Your task to perform on an android device: add a contact Image 0: 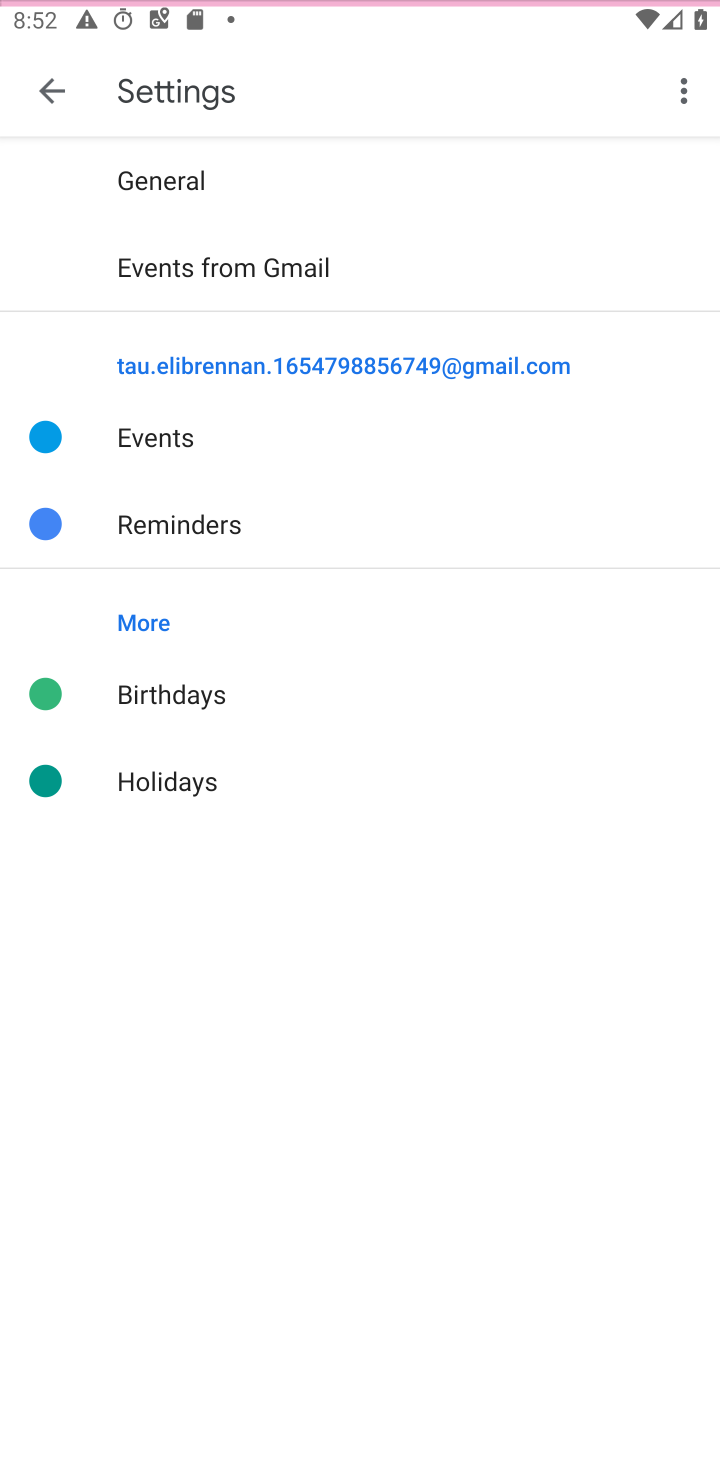
Step 0: press home button
Your task to perform on an android device: add a contact Image 1: 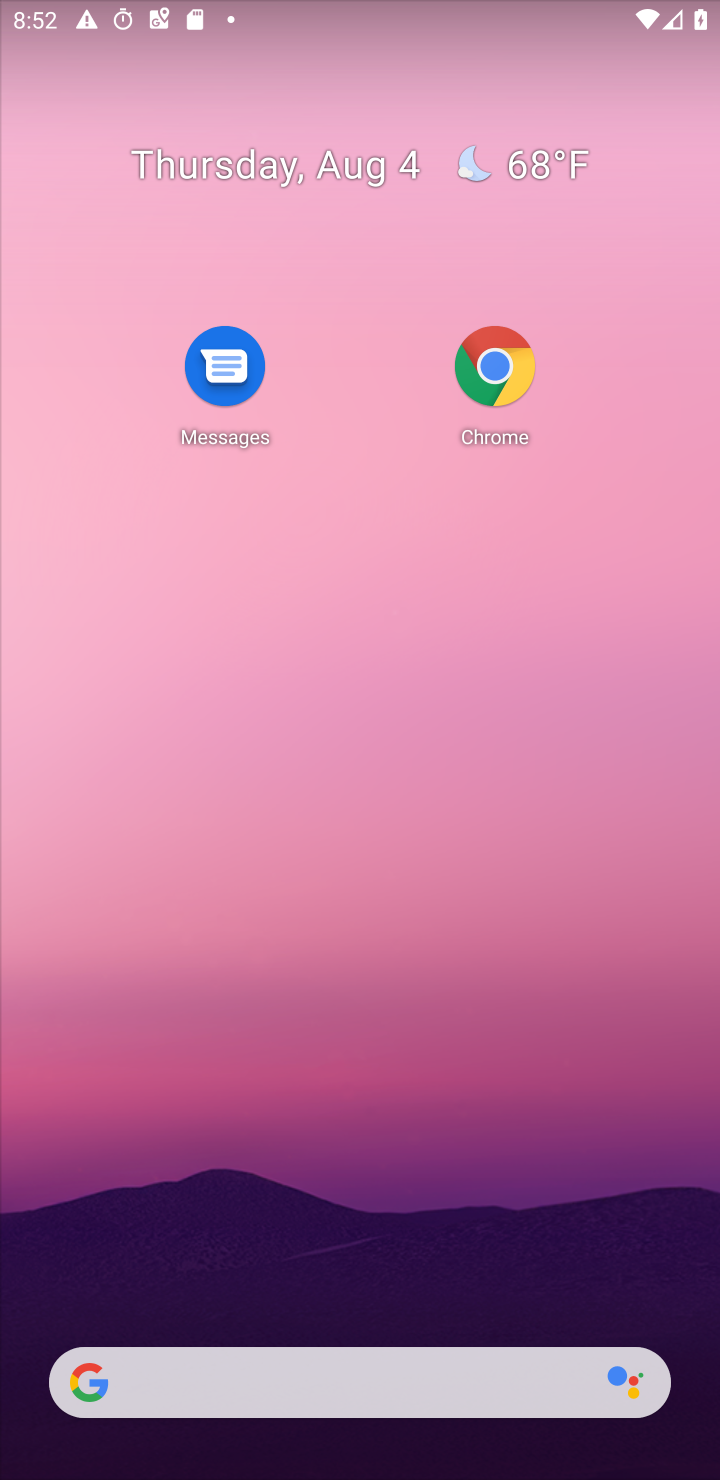
Step 1: drag from (435, 1387) to (268, 458)
Your task to perform on an android device: add a contact Image 2: 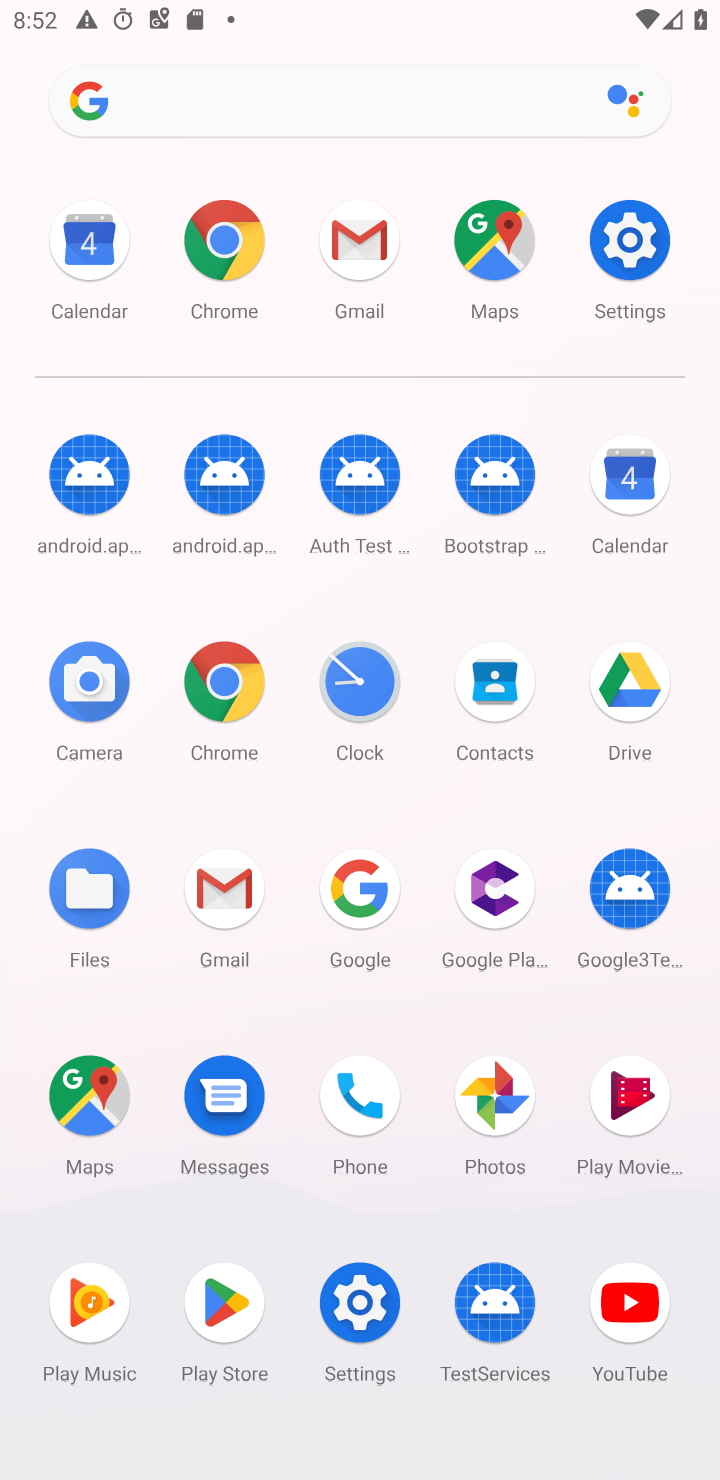
Step 2: click (381, 1083)
Your task to perform on an android device: add a contact Image 3: 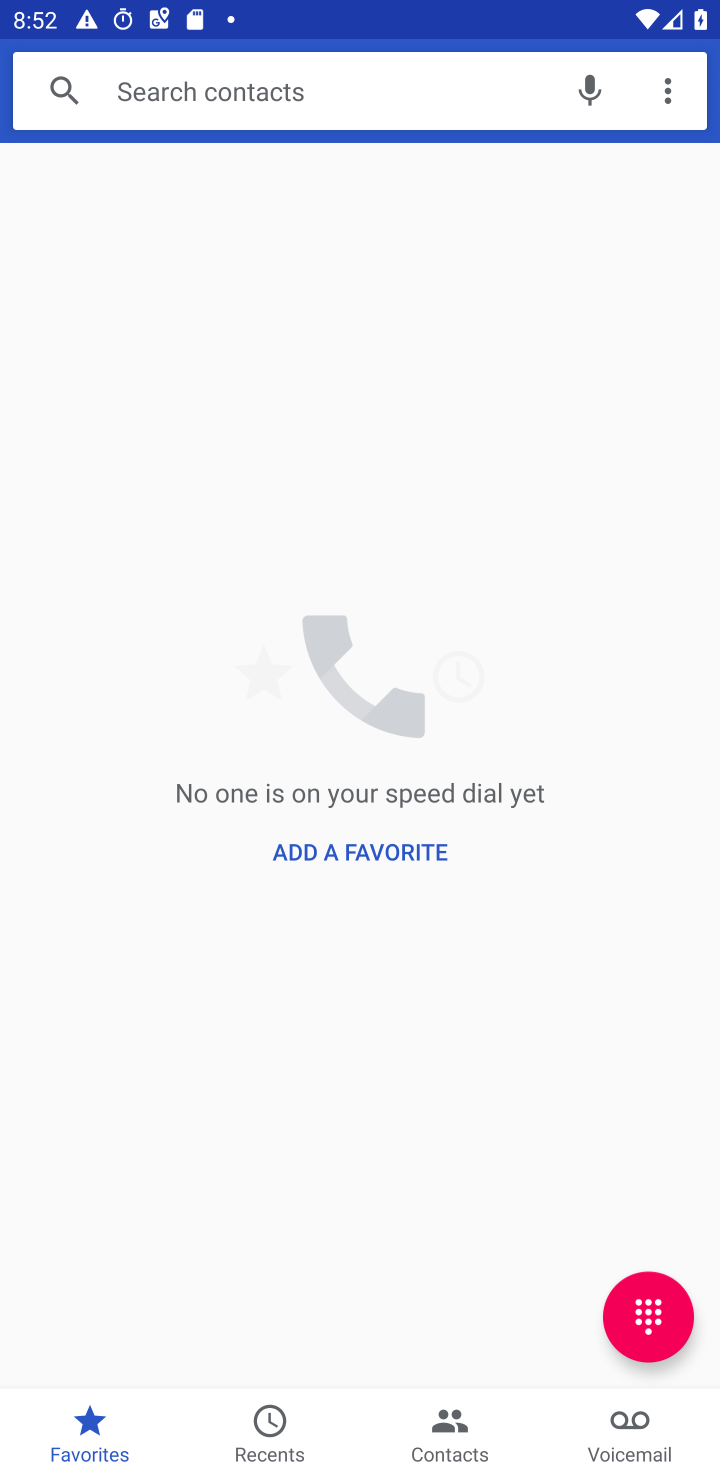
Step 3: click (440, 1425)
Your task to perform on an android device: add a contact Image 4: 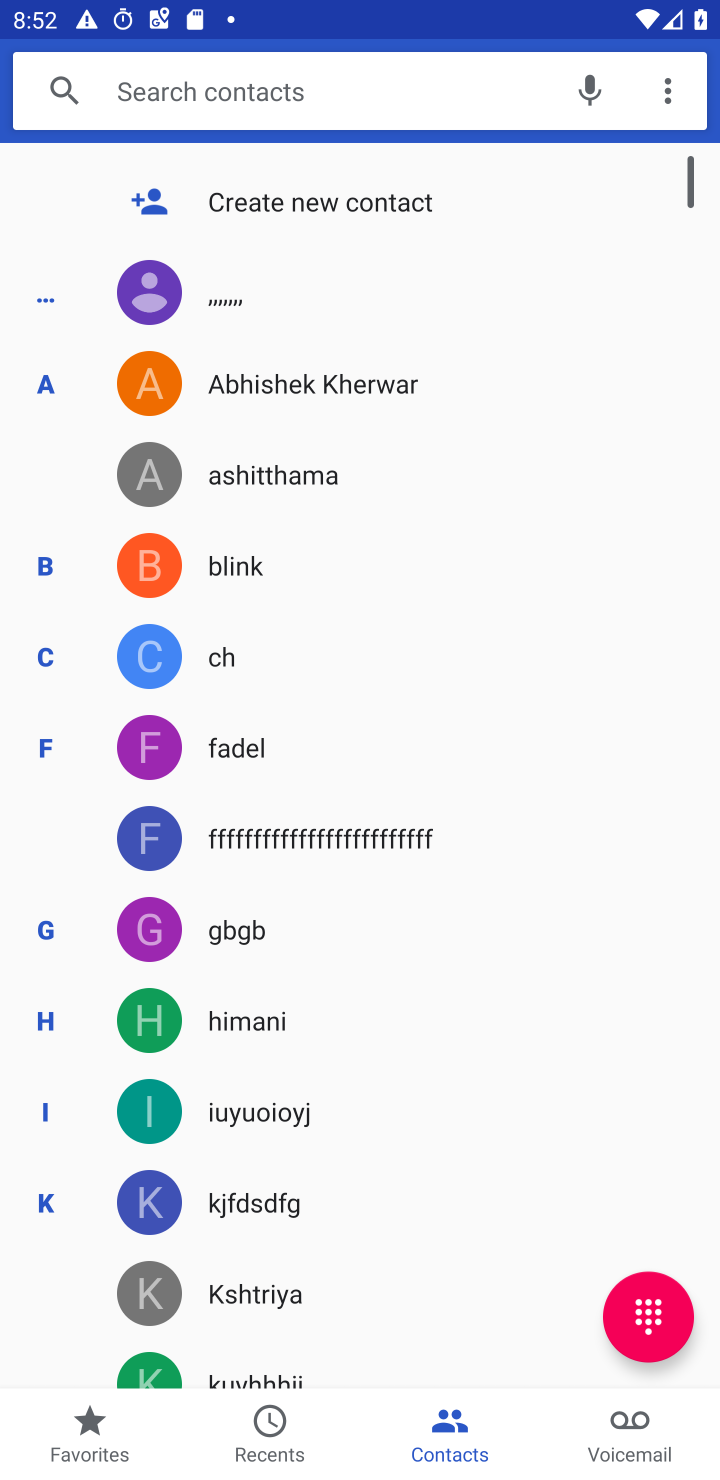
Step 4: click (222, 200)
Your task to perform on an android device: add a contact Image 5: 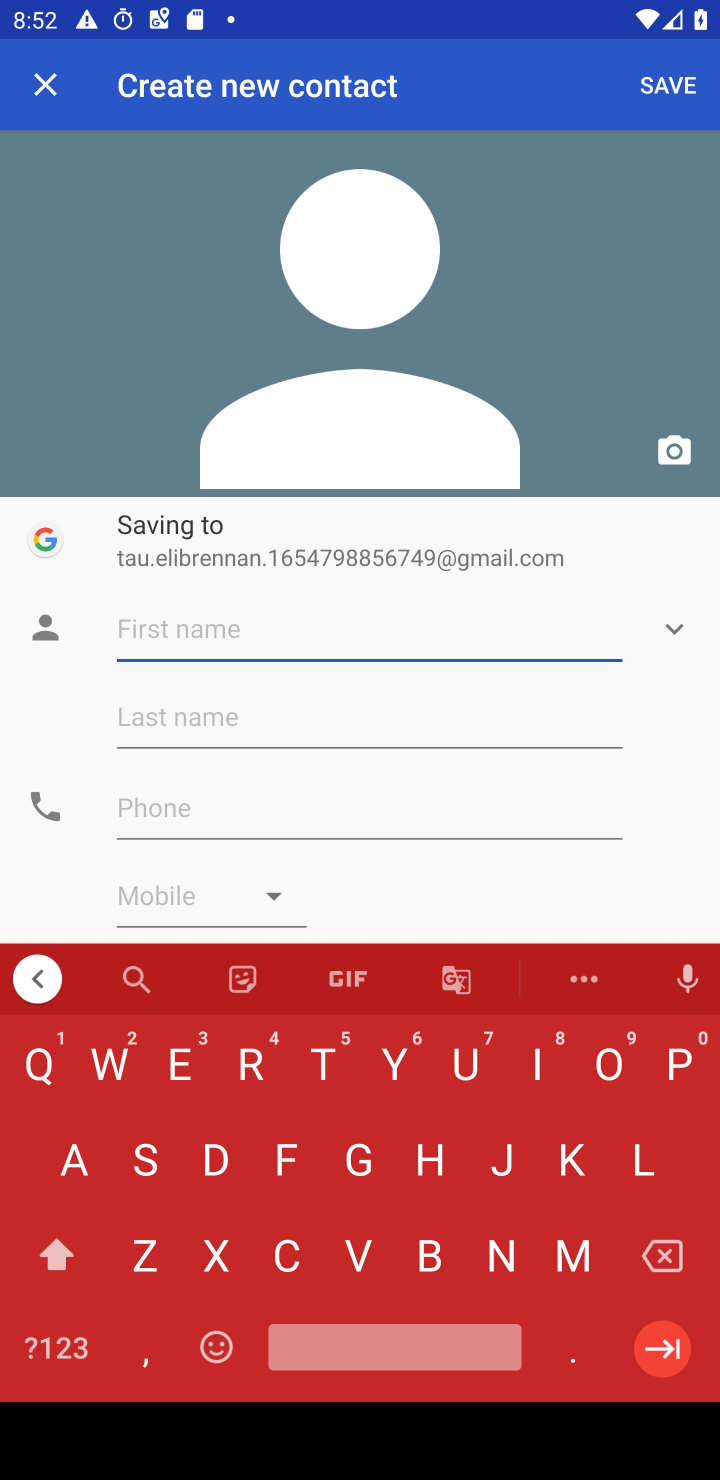
Step 5: click (266, 1213)
Your task to perform on an android device: add a contact Image 6: 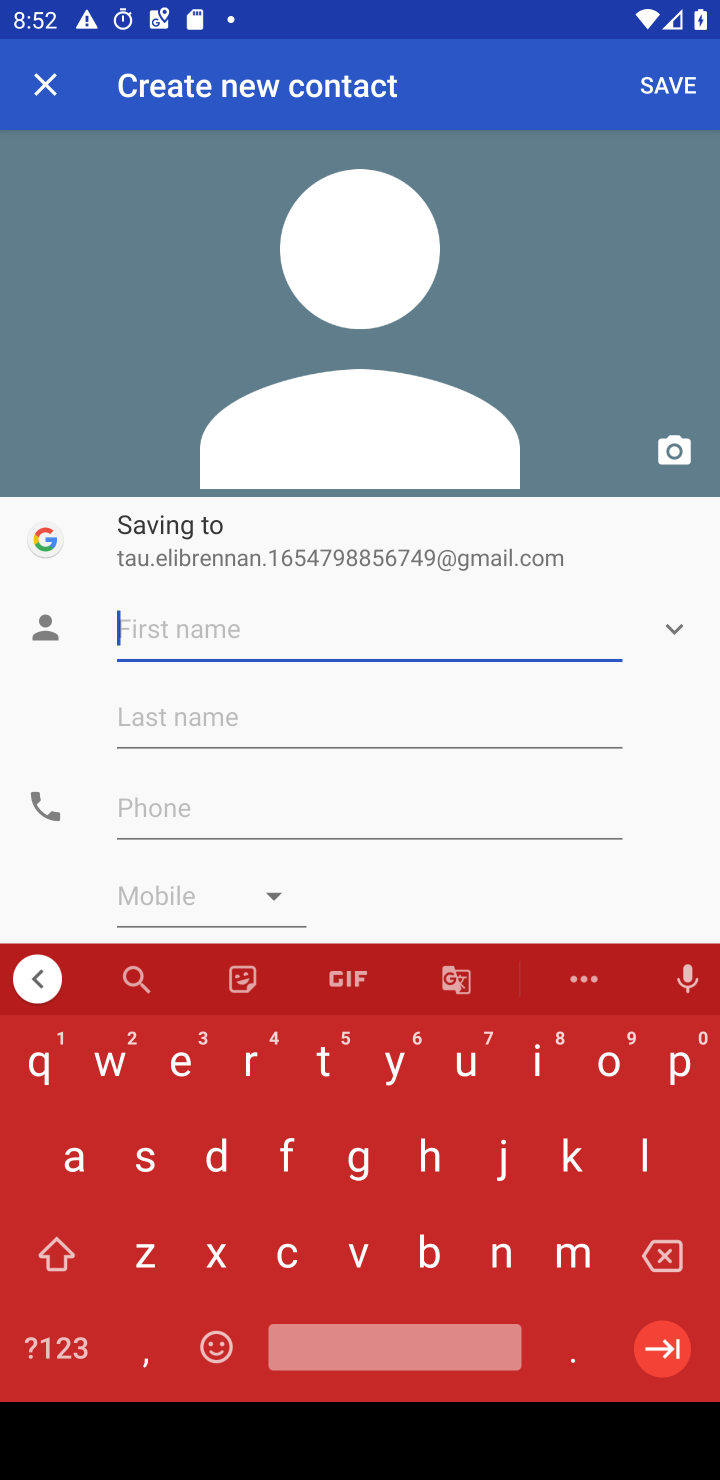
Step 6: drag from (311, 1167) to (426, 1181)
Your task to perform on an android device: add a contact Image 7: 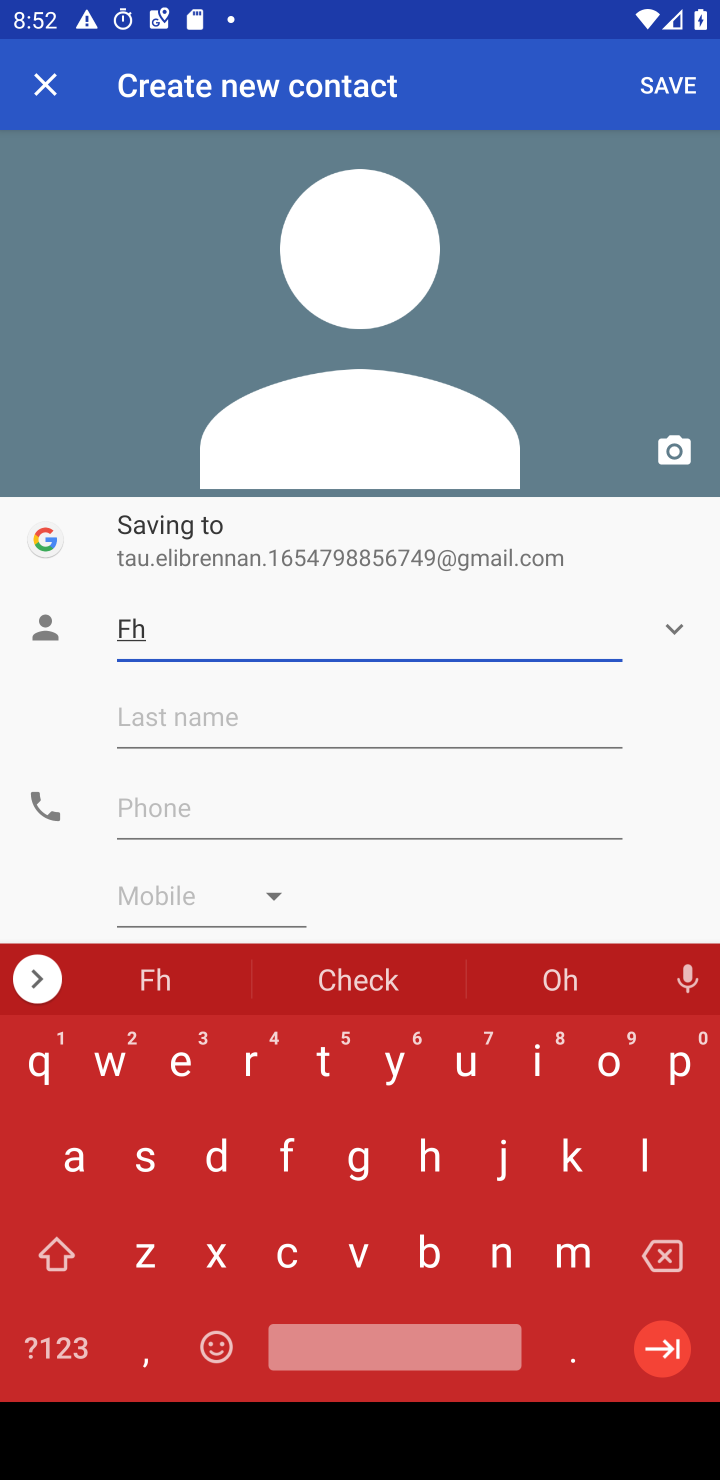
Step 7: click (184, 814)
Your task to perform on an android device: add a contact Image 8: 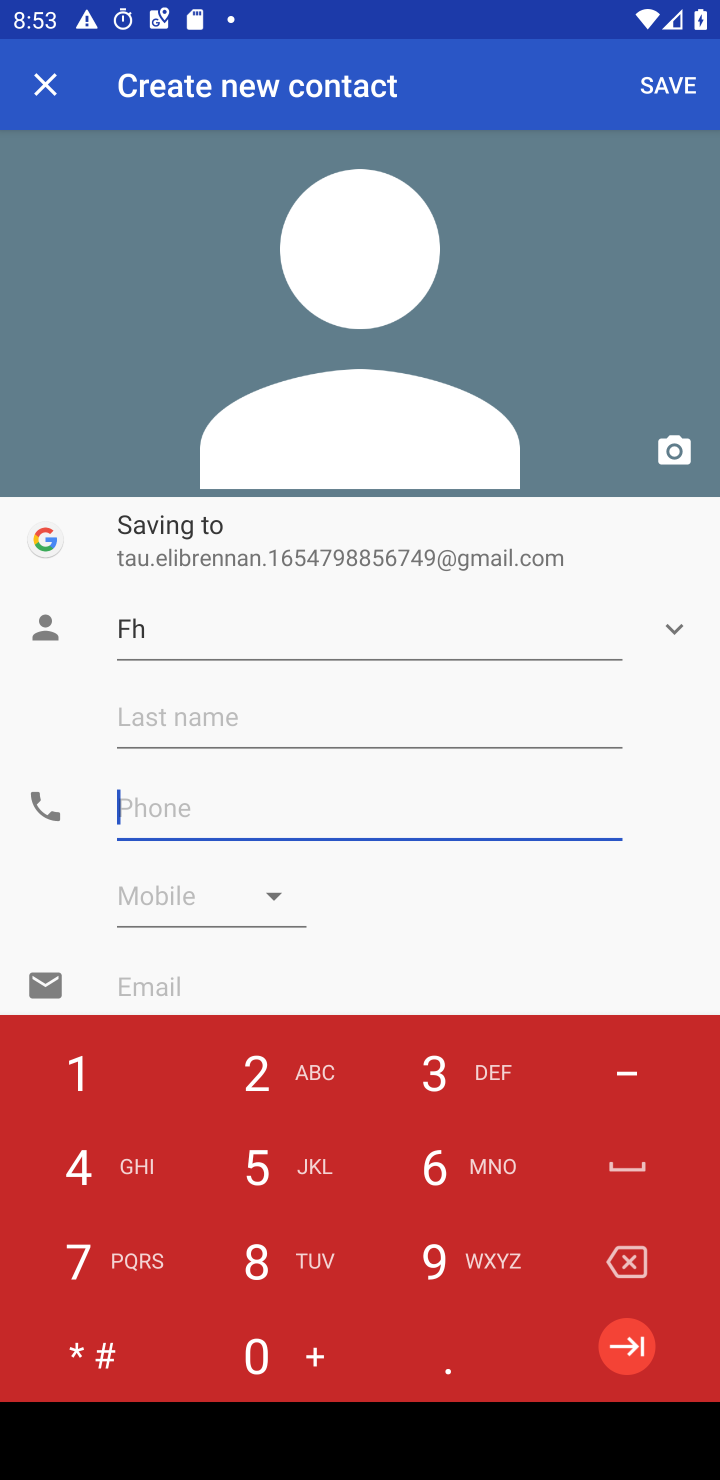
Step 8: click (267, 1125)
Your task to perform on an android device: add a contact Image 9: 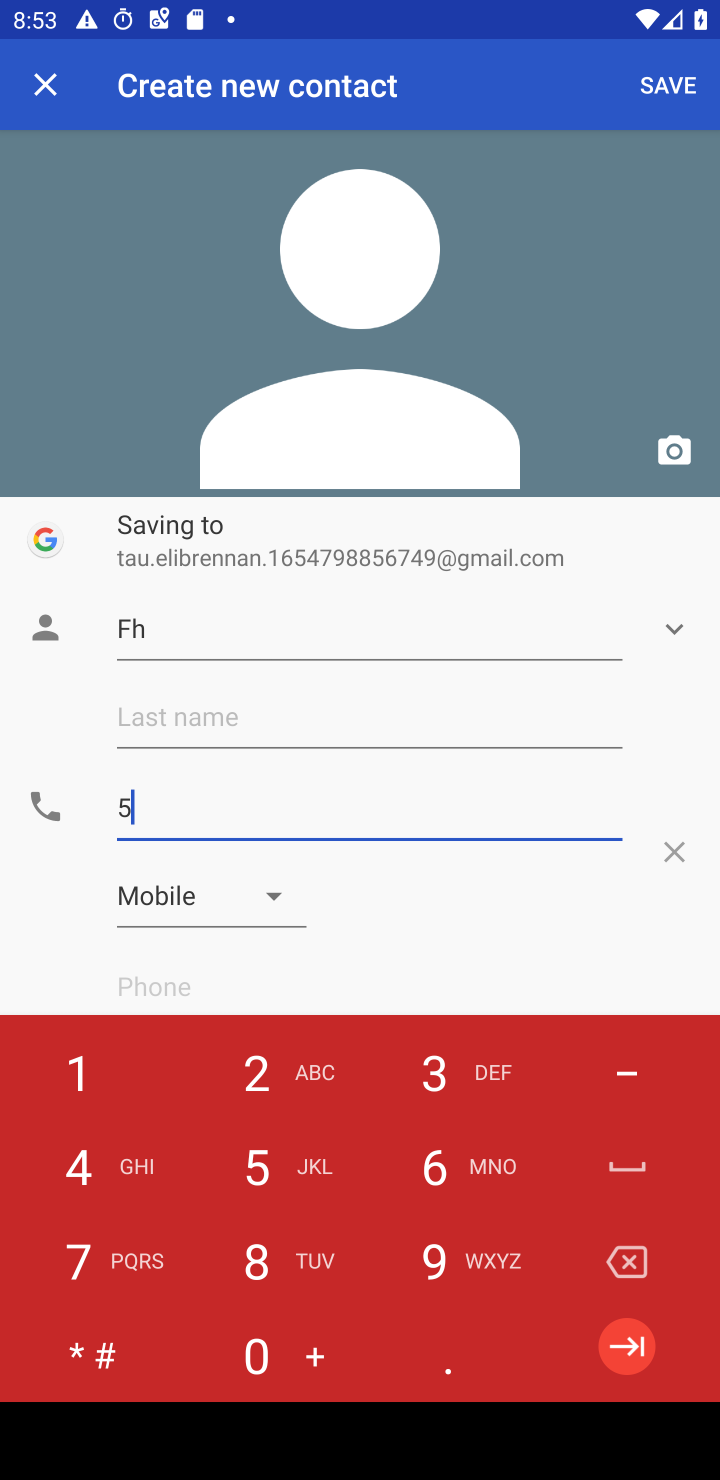
Step 9: click (108, 1186)
Your task to perform on an android device: add a contact Image 10: 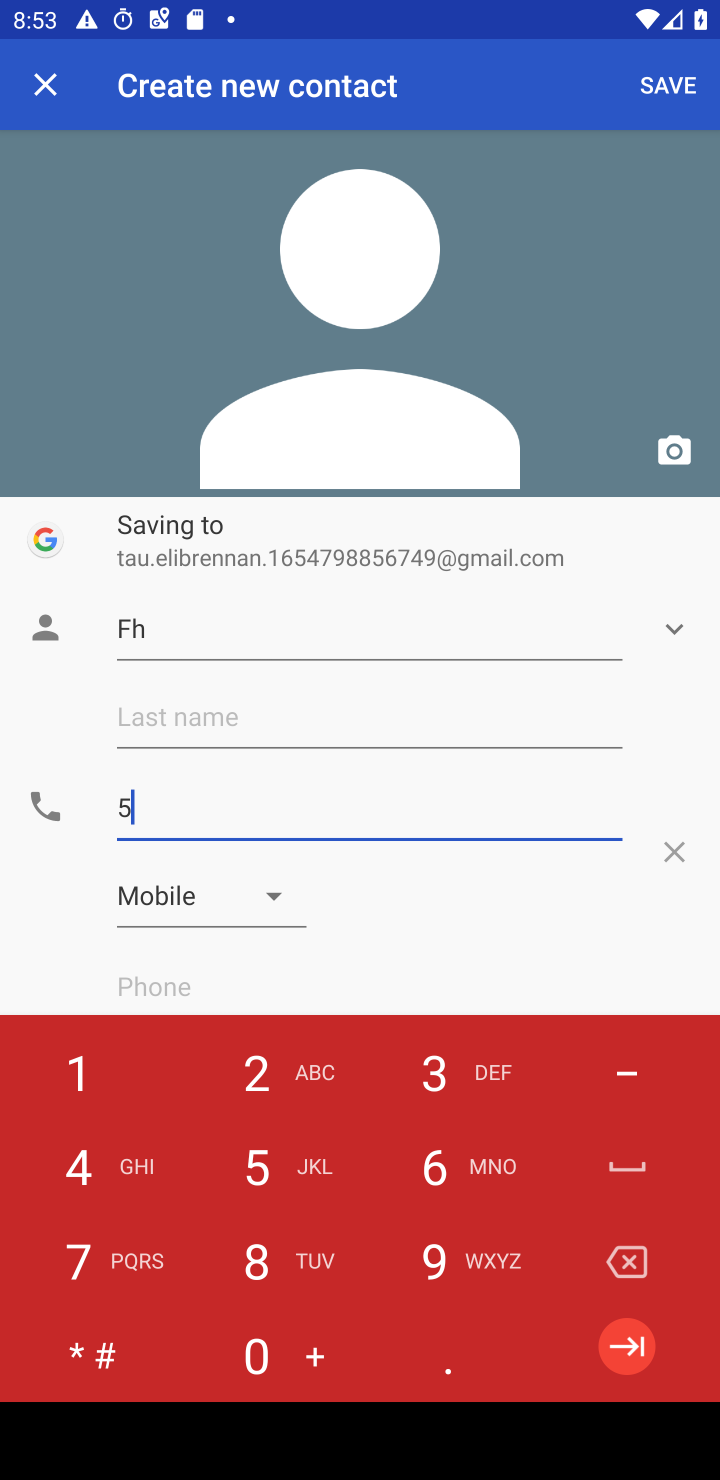
Step 10: click (254, 1281)
Your task to perform on an android device: add a contact Image 11: 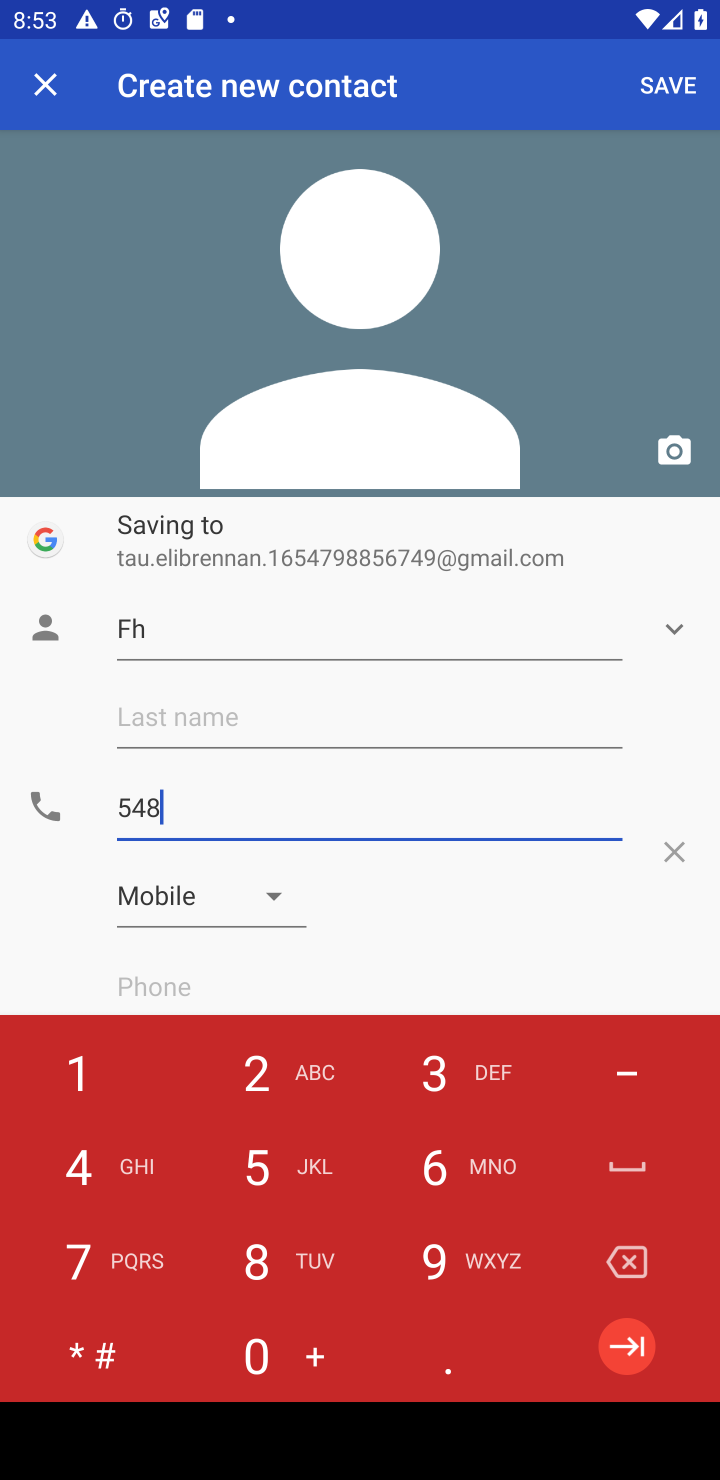
Step 11: click (486, 1175)
Your task to perform on an android device: add a contact Image 12: 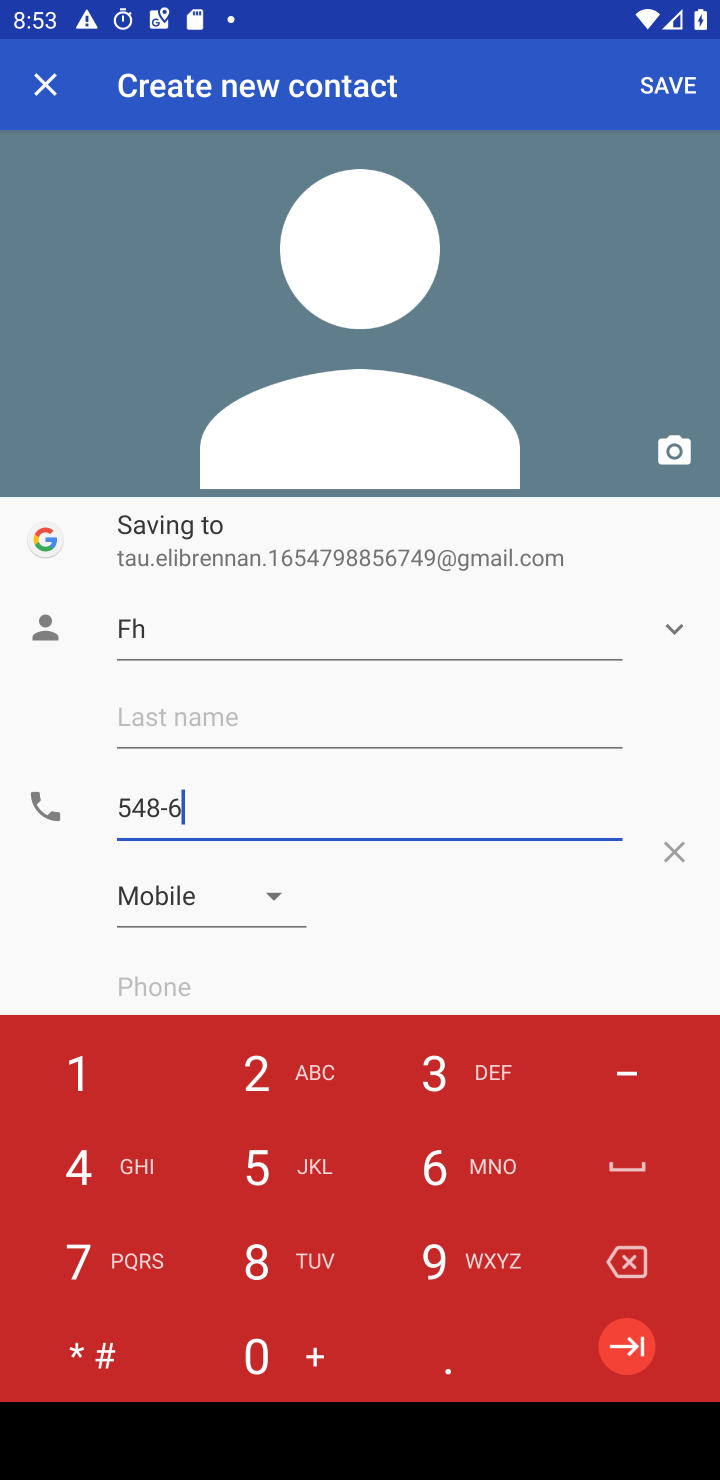
Step 12: click (451, 1229)
Your task to perform on an android device: add a contact Image 13: 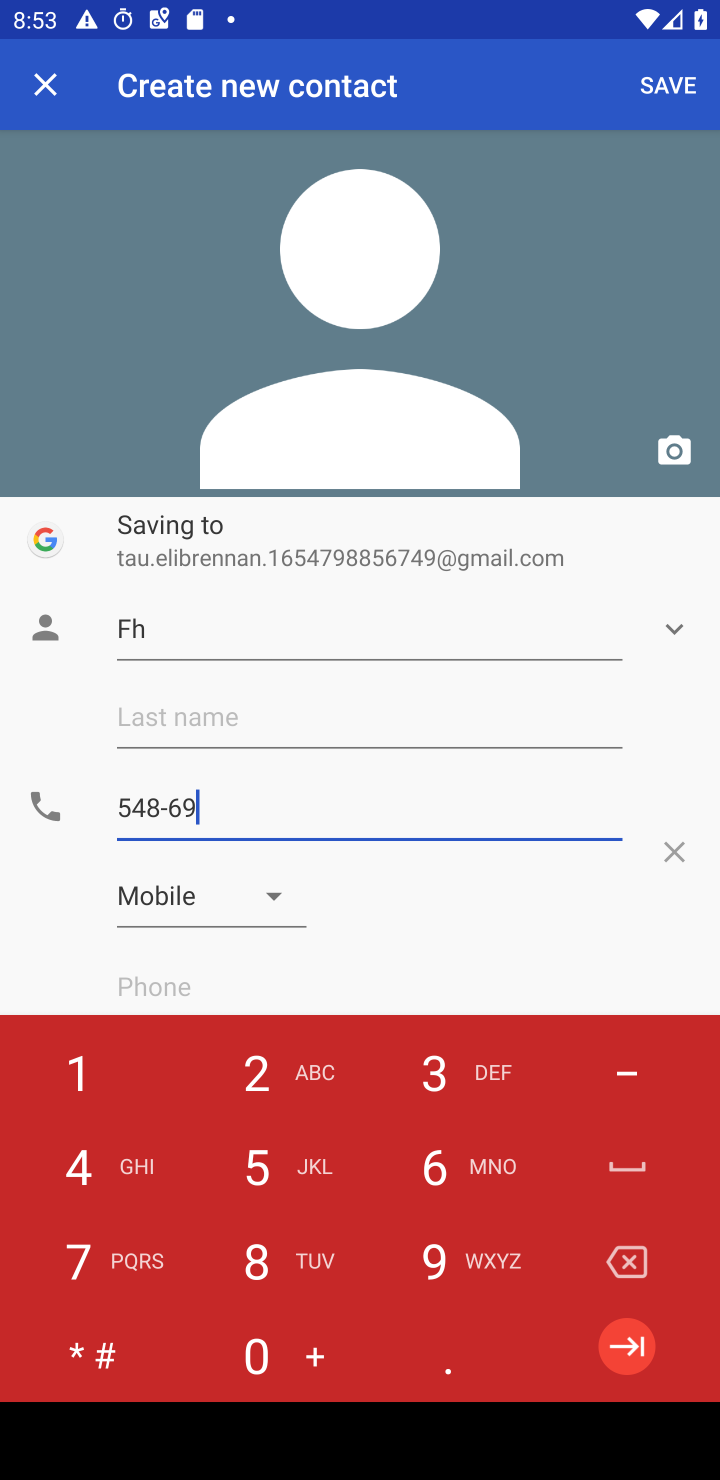
Step 13: click (290, 1138)
Your task to perform on an android device: add a contact Image 14: 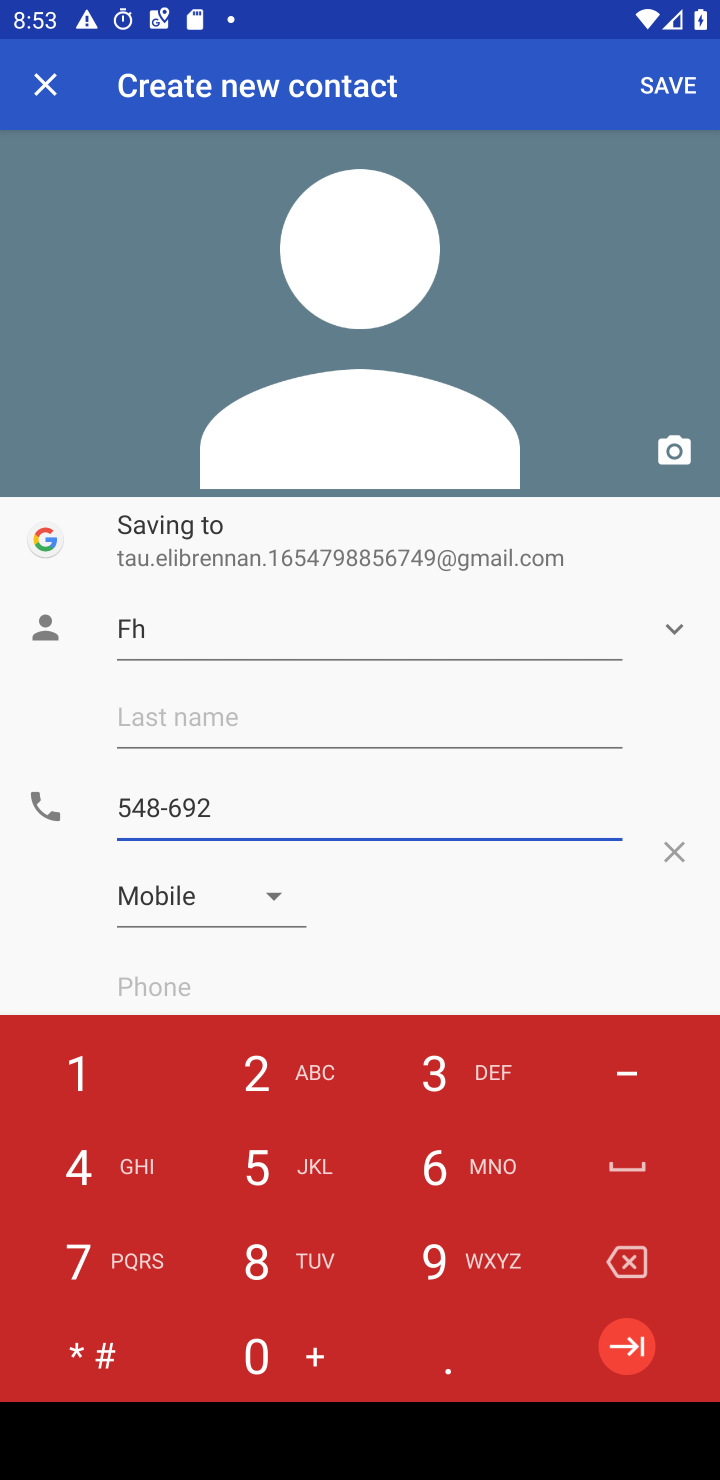
Step 14: click (661, 76)
Your task to perform on an android device: add a contact Image 15: 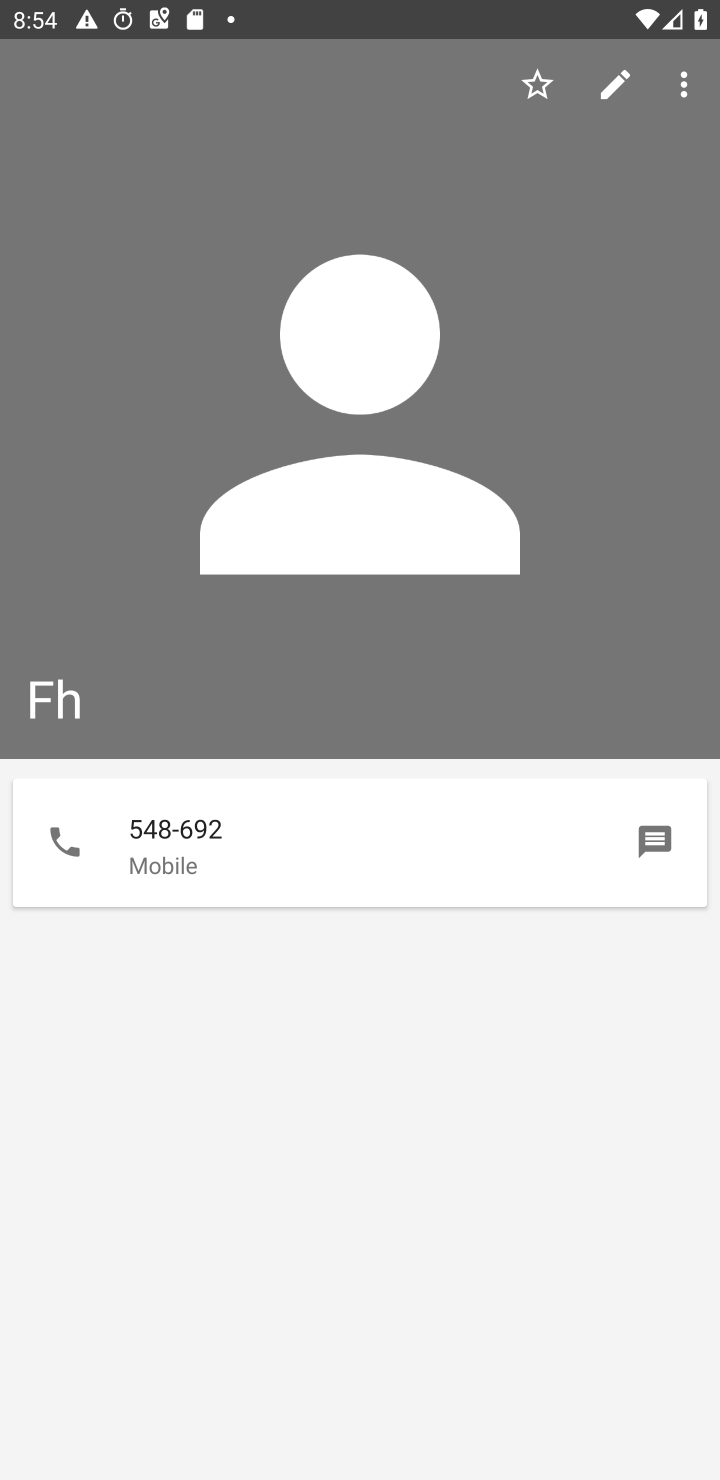
Step 15: task complete